Your task to perform on an android device: turn off location history Image 0: 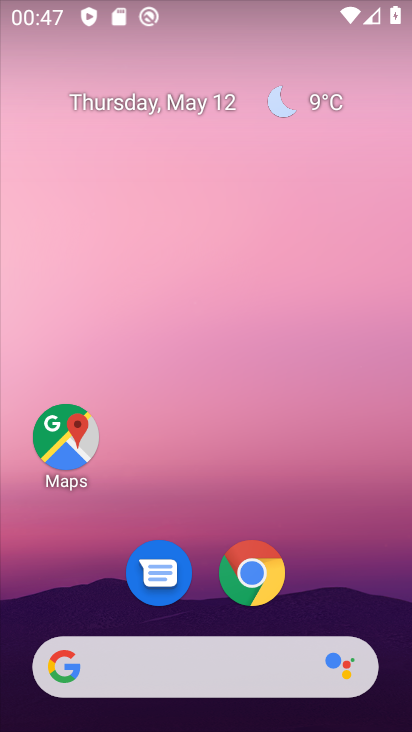
Step 0: drag from (206, 550) to (124, 7)
Your task to perform on an android device: turn off location history Image 1: 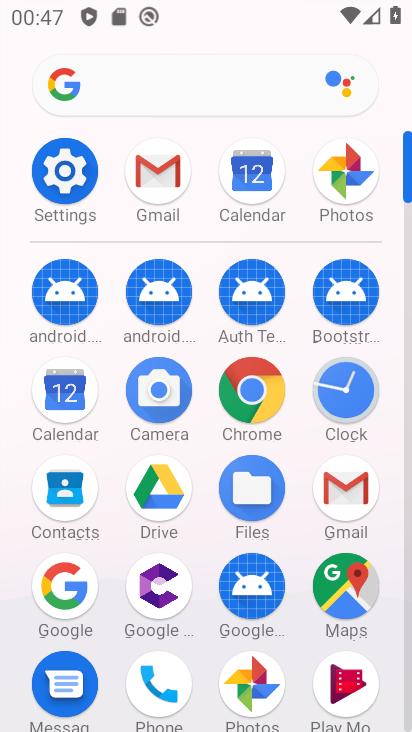
Step 1: click (73, 181)
Your task to perform on an android device: turn off location history Image 2: 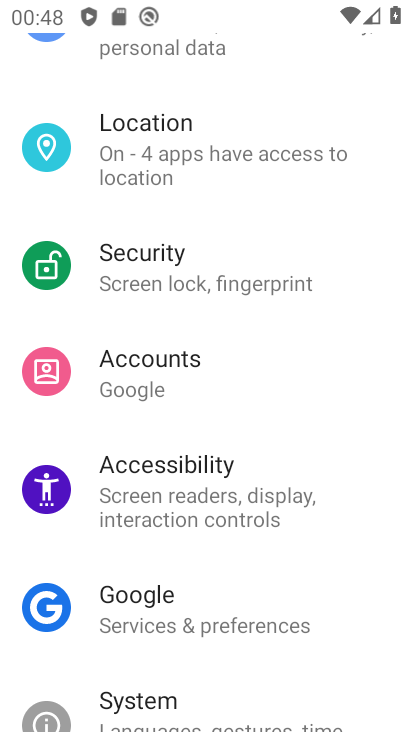
Step 2: click (171, 153)
Your task to perform on an android device: turn off location history Image 3: 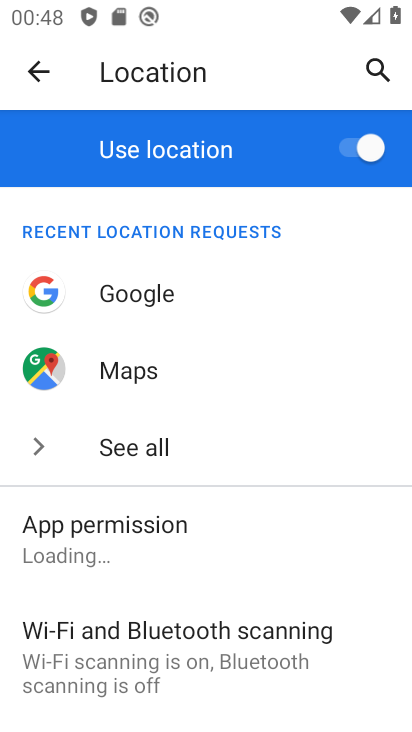
Step 3: drag from (231, 636) to (271, 199)
Your task to perform on an android device: turn off location history Image 4: 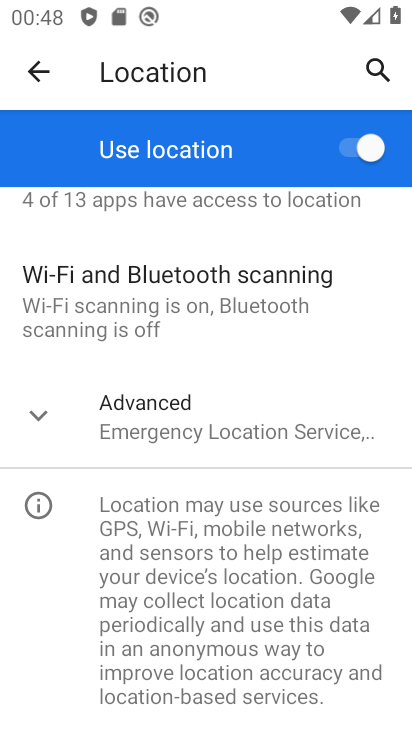
Step 4: click (153, 395)
Your task to perform on an android device: turn off location history Image 5: 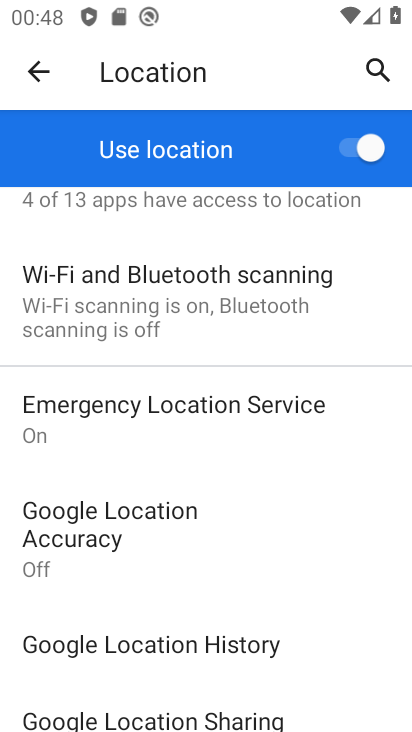
Step 5: click (167, 648)
Your task to perform on an android device: turn off location history Image 6: 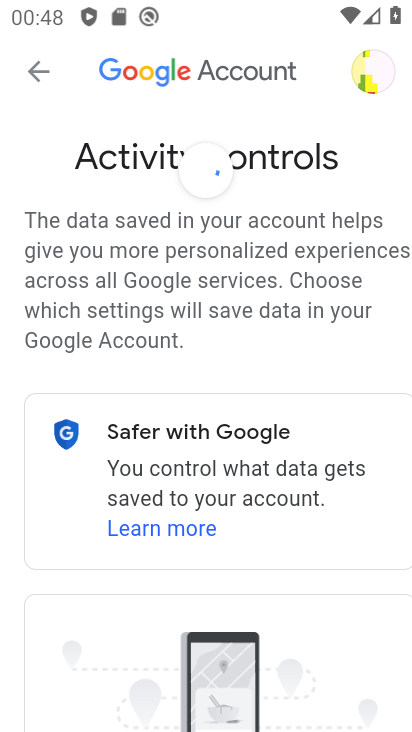
Step 6: task complete